Your task to perform on an android device: Open calendar and show me the first week of next month Image 0: 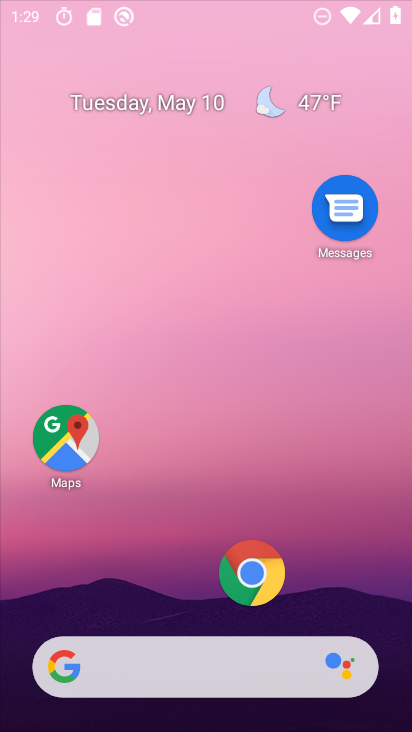
Step 0: click (350, 72)
Your task to perform on an android device: Open calendar and show me the first week of next month Image 1: 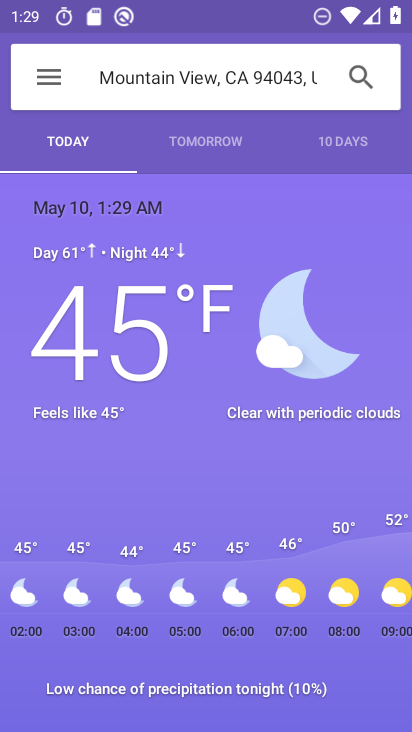
Step 1: press home button
Your task to perform on an android device: Open calendar and show me the first week of next month Image 2: 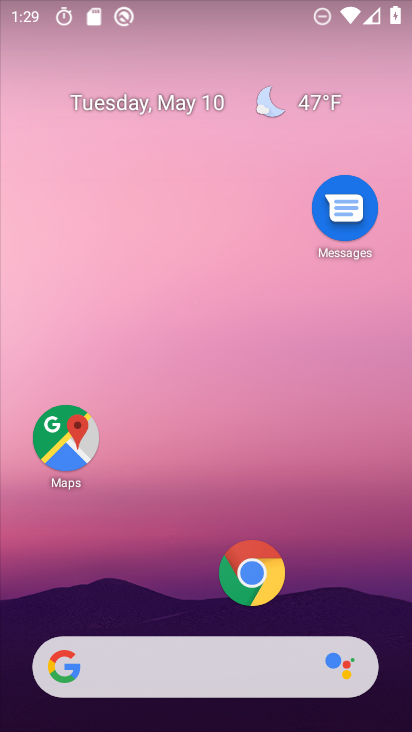
Step 2: drag from (211, 621) to (261, 150)
Your task to perform on an android device: Open calendar and show me the first week of next month Image 3: 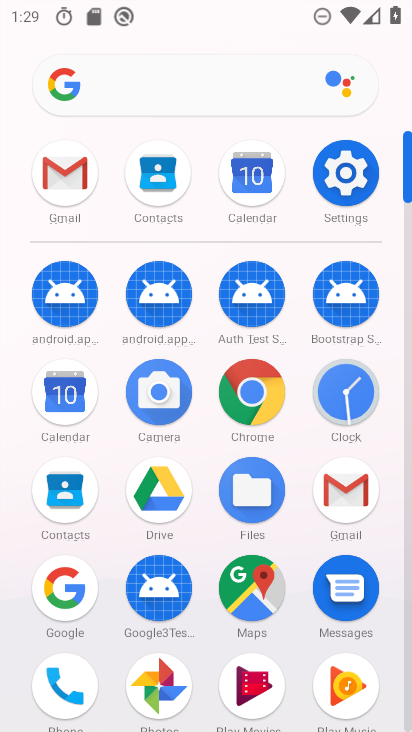
Step 3: click (63, 386)
Your task to perform on an android device: Open calendar and show me the first week of next month Image 4: 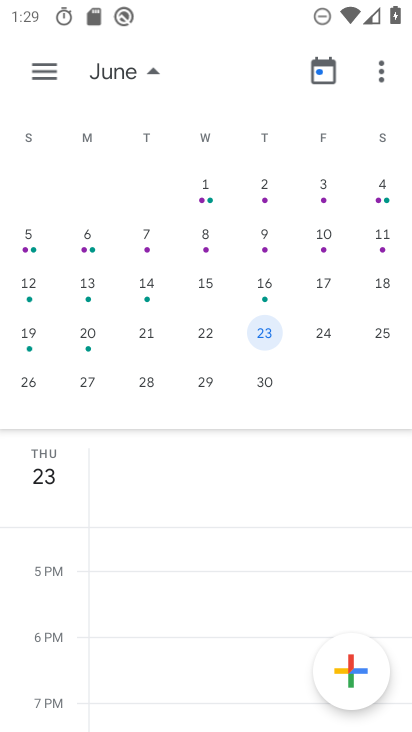
Step 4: click (275, 175)
Your task to perform on an android device: Open calendar and show me the first week of next month Image 5: 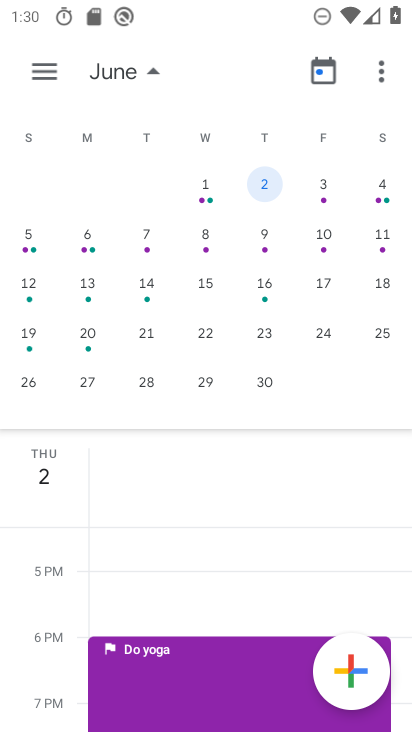
Step 5: task complete